Your task to perform on an android device: delete browsing data in the chrome app Image 0: 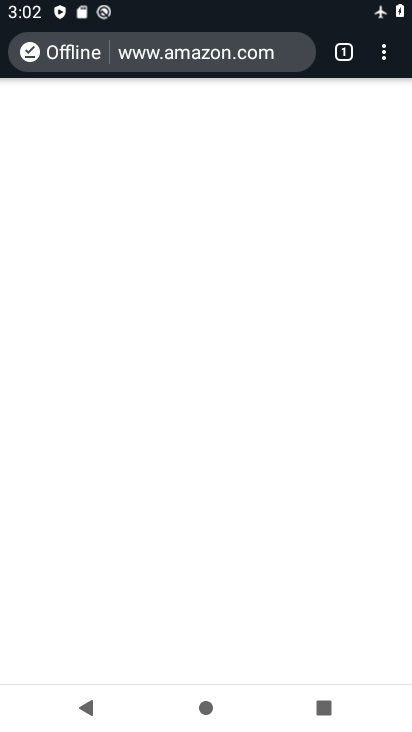
Step 0: press home button
Your task to perform on an android device: delete browsing data in the chrome app Image 1: 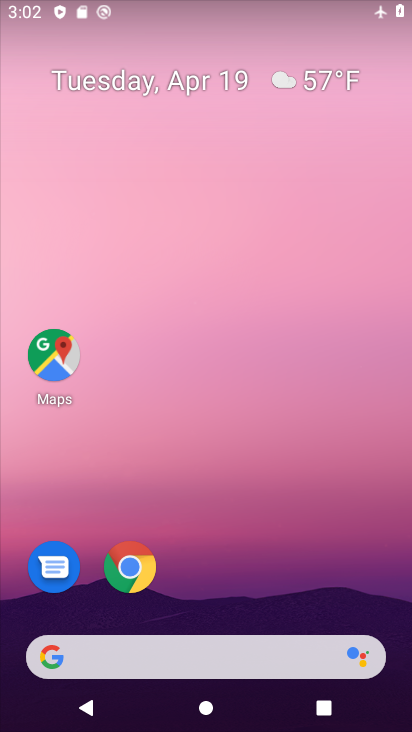
Step 1: drag from (370, 577) to (367, 79)
Your task to perform on an android device: delete browsing data in the chrome app Image 2: 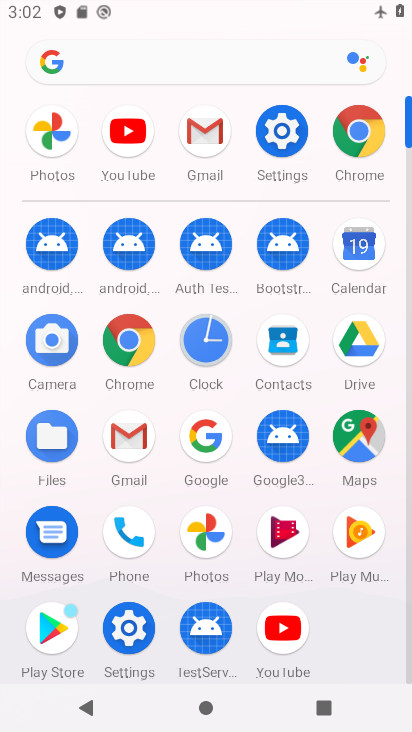
Step 2: click (359, 136)
Your task to perform on an android device: delete browsing data in the chrome app Image 3: 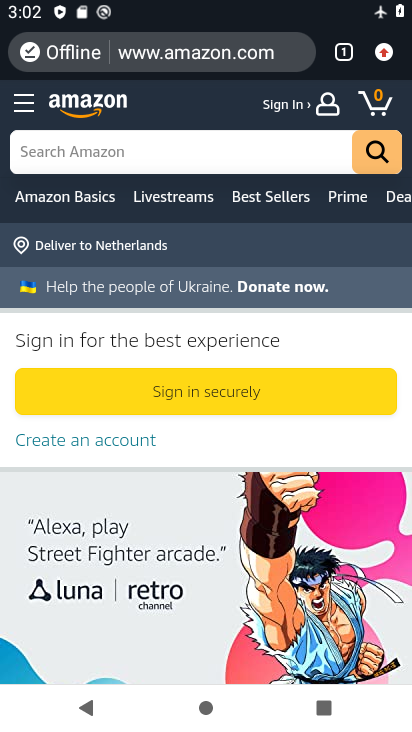
Step 3: click (389, 54)
Your task to perform on an android device: delete browsing data in the chrome app Image 4: 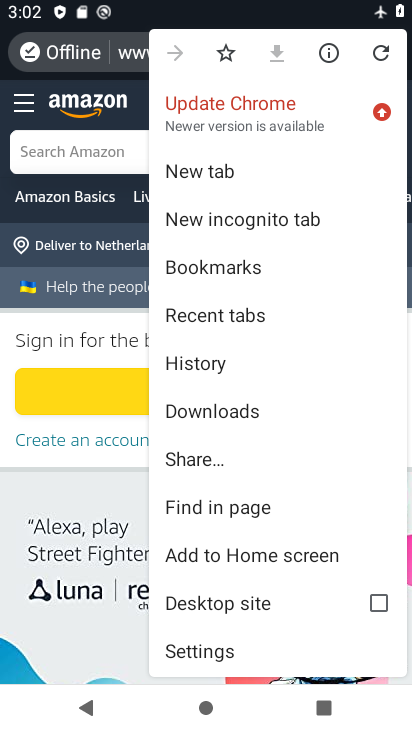
Step 4: click (213, 656)
Your task to perform on an android device: delete browsing data in the chrome app Image 5: 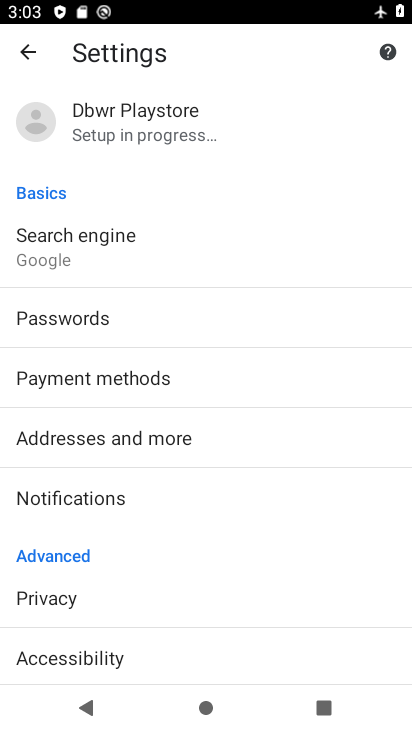
Step 5: drag from (258, 589) to (276, 266)
Your task to perform on an android device: delete browsing data in the chrome app Image 6: 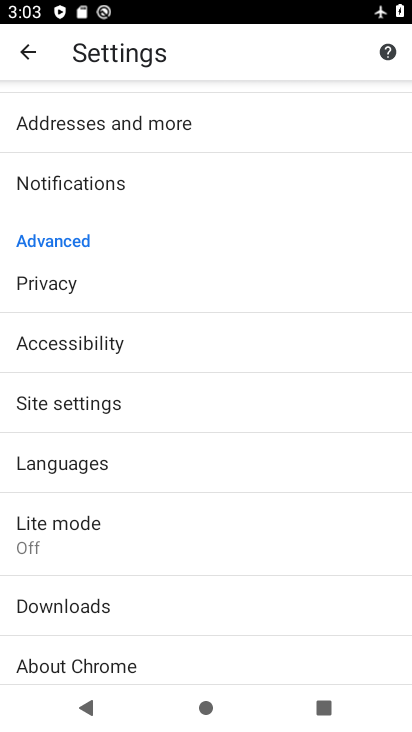
Step 6: drag from (212, 582) to (228, 303)
Your task to perform on an android device: delete browsing data in the chrome app Image 7: 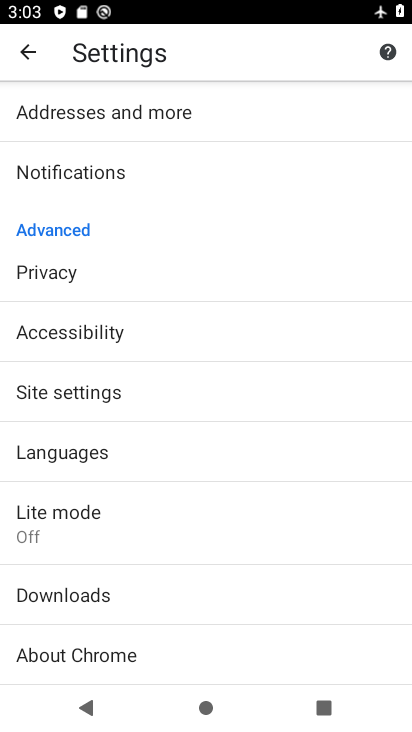
Step 7: click (63, 275)
Your task to perform on an android device: delete browsing data in the chrome app Image 8: 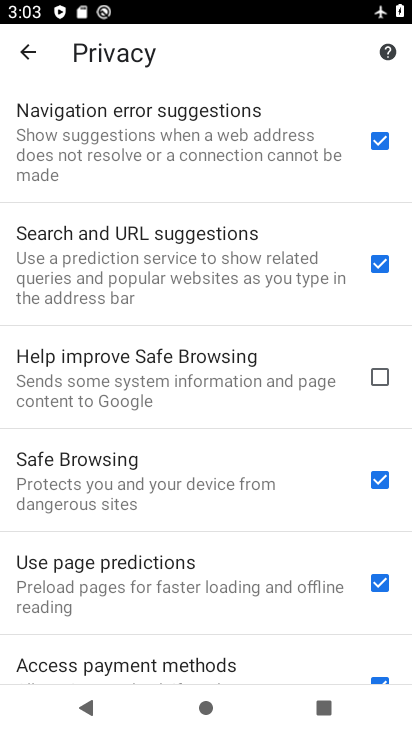
Step 8: drag from (273, 586) to (281, 290)
Your task to perform on an android device: delete browsing data in the chrome app Image 9: 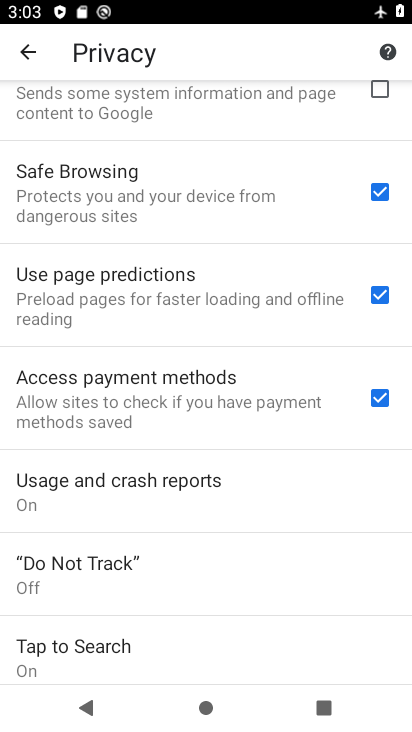
Step 9: drag from (242, 584) to (232, 281)
Your task to perform on an android device: delete browsing data in the chrome app Image 10: 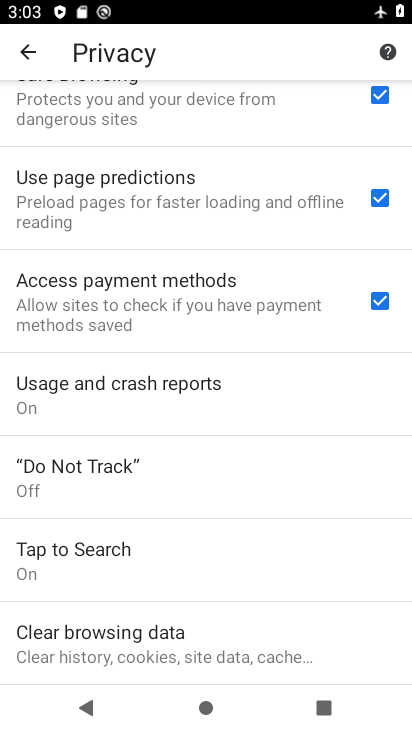
Step 10: click (115, 645)
Your task to perform on an android device: delete browsing data in the chrome app Image 11: 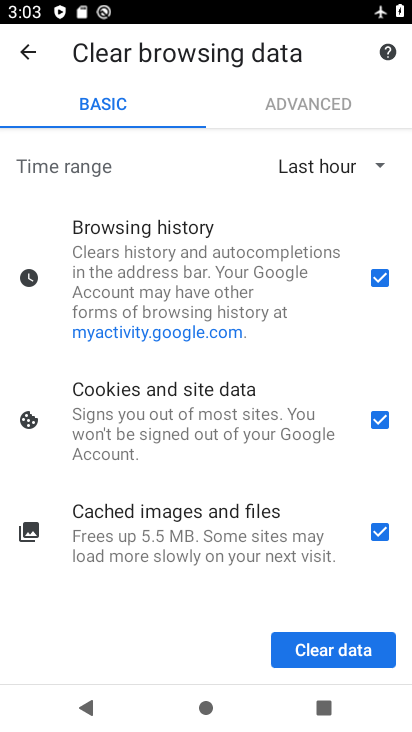
Step 11: click (336, 651)
Your task to perform on an android device: delete browsing data in the chrome app Image 12: 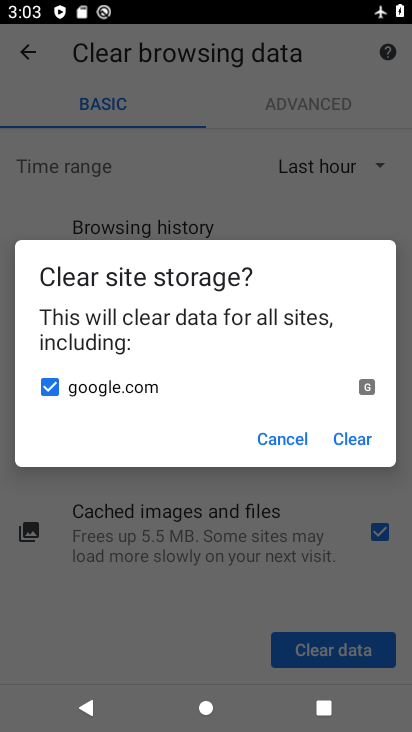
Step 12: click (346, 443)
Your task to perform on an android device: delete browsing data in the chrome app Image 13: 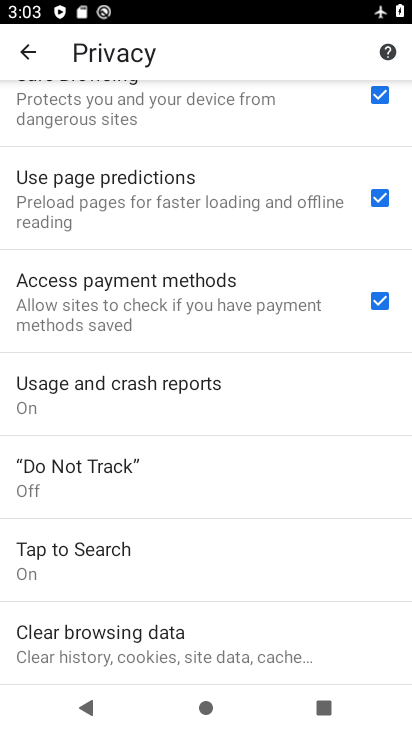
Step 13: task complete